Your task to perform on an android device: move an email to a new category in the gmail app Image 0: 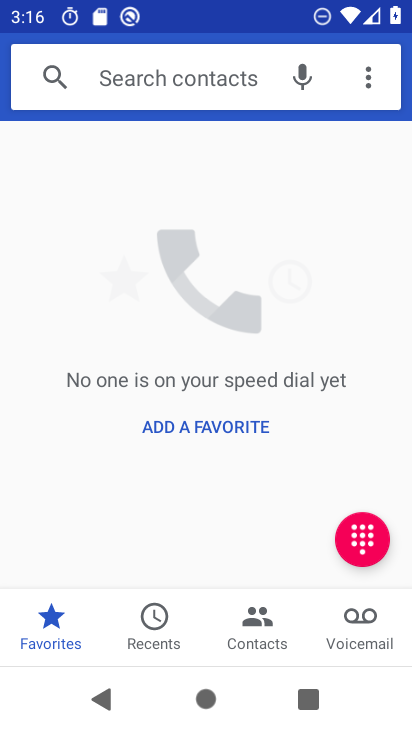
Step 0: press home button
Your task to perform on an android device: move an email to a new category in the gmail app Image 1: 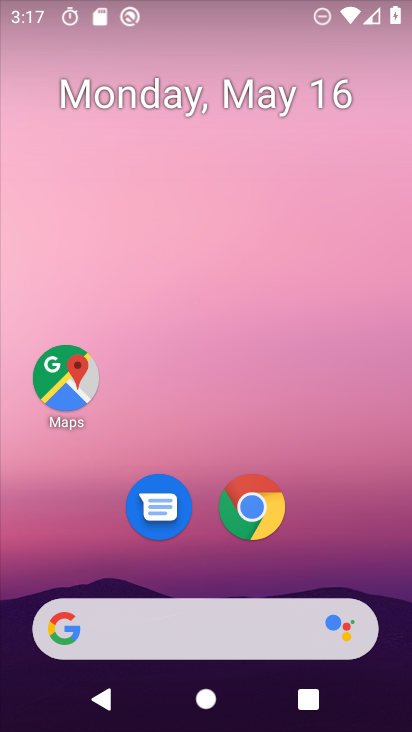
Step 1: click (341, 190)
Your task to perform on an android device: move an email to a new category in the gmail app Image 2: 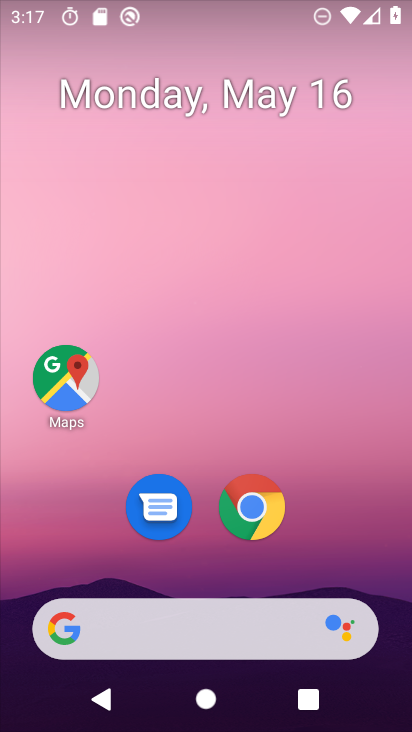
Step 2: drag from (348, 490) to (390, 78)
Your task to perform on an android device: move an email to a new category in the gmail app Image 3: 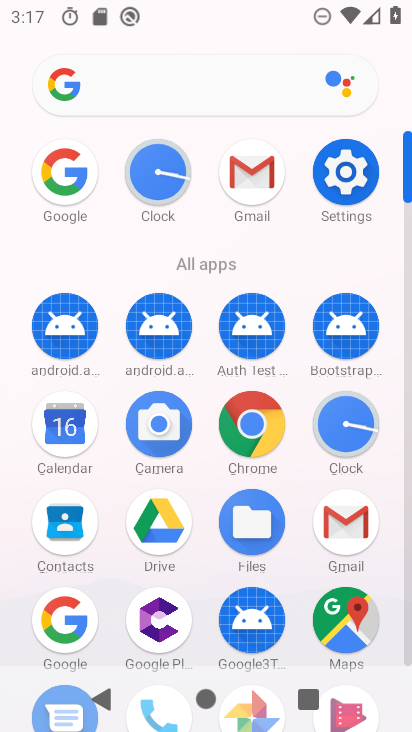
Step 3: click (250, 181)
Your task to perform on an android device: move an email to a new category in the gmail app Image 4: 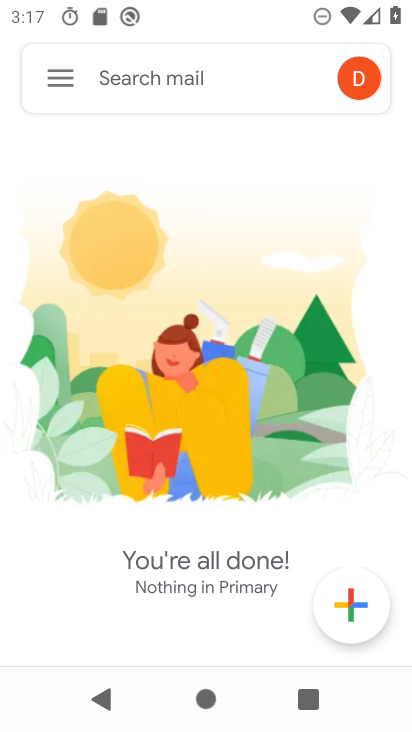
Step 4: click (77, 87)
Your task to perform on an android device: move an email to a new category in the gmail app Image 5: 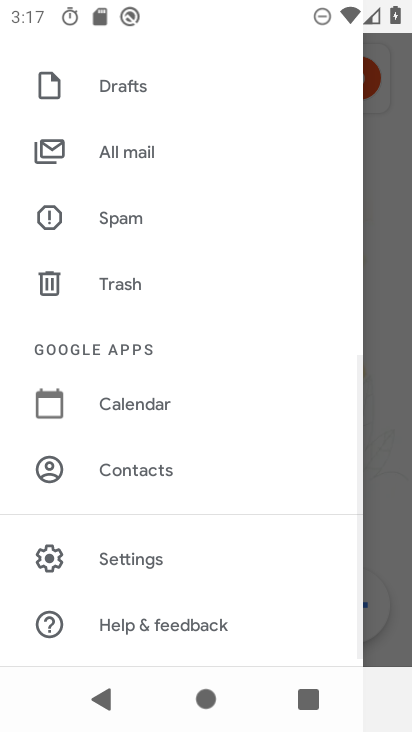
Step 5: click (141, 162)
Your task to perform on an android device: move an email to a new category in the gmail app Image 6: 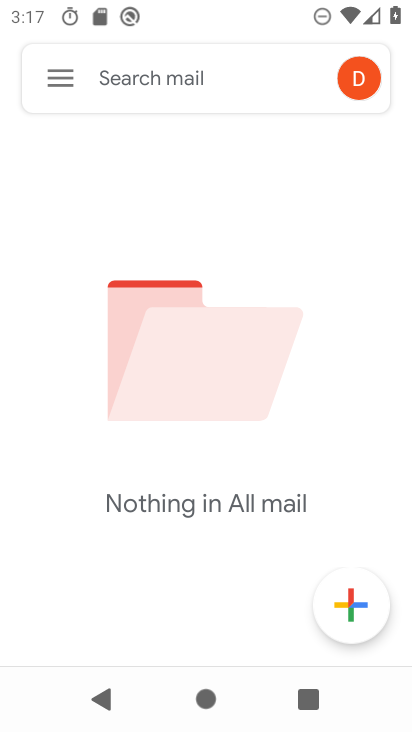
Step 6: task complete